Your task to perform on an android device: Go to notification settings Image 0: 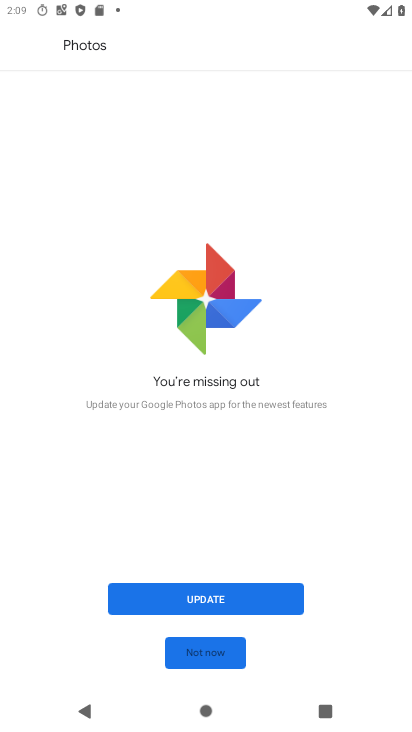
Step 0: press home button
Your task to perform on an android device: Go to notification settings Image 1: 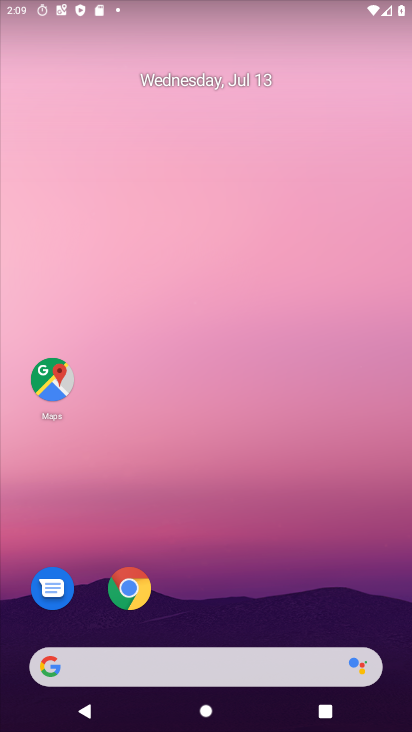
Step 1: drag from (194, 617) to (212, 354)
Your task to perform on an android device: Go to notification settings Image 2: 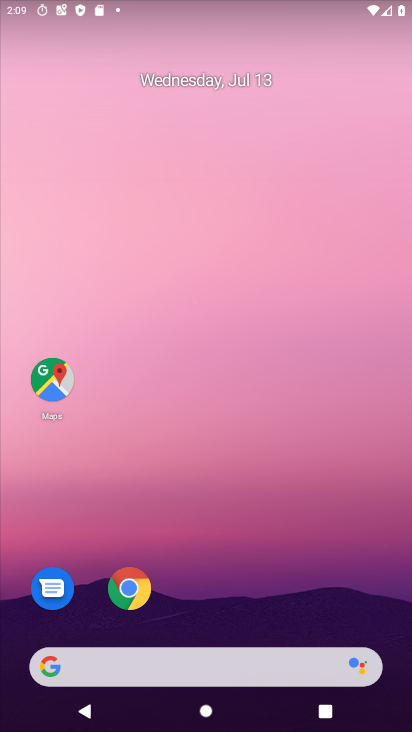
Step 2: drag from (153, 624) to (198, 296)
Your task to perform on an android device: Go to notification settings Image 3: 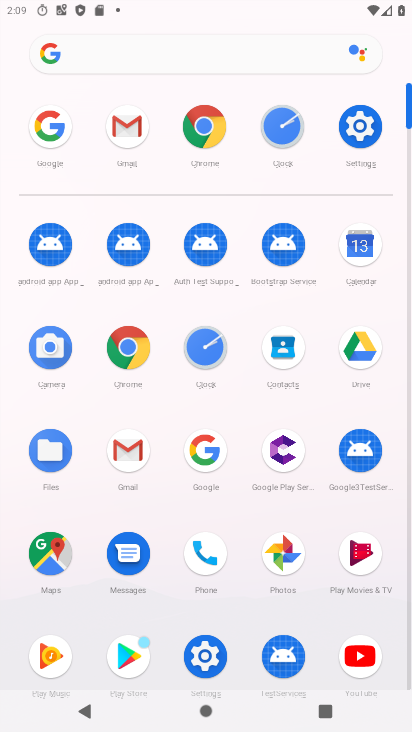
Step 3: click (361, 117)
Your task to perform on an android device: Go to notification settings Image 4: 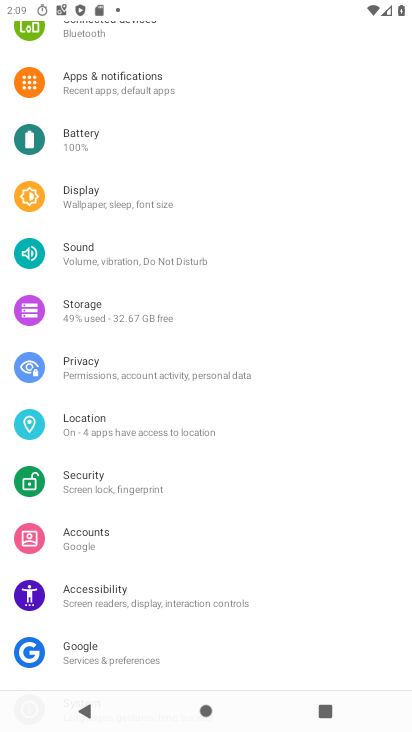
Step 4: click (138, 83)
Your task to perform on an android device: Go to notification settings Image 5: 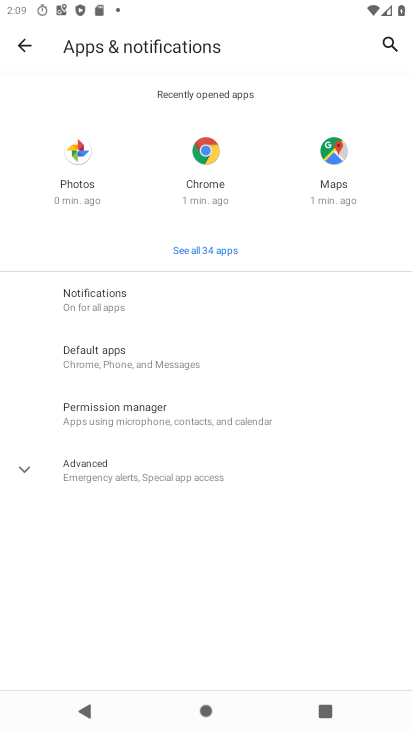
Step 5: click (88, 467)
Your task to perform on an android device: Go to notification settings Image 6: 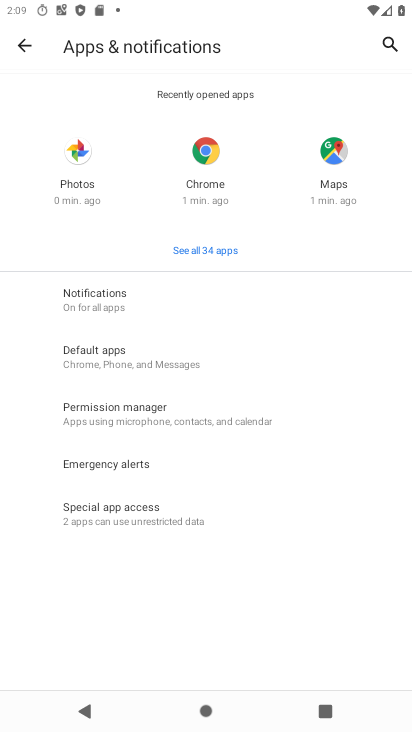
Step 6: task complete